Your task to perform on an android device: make emails show in primary in the gmail app Image 0: 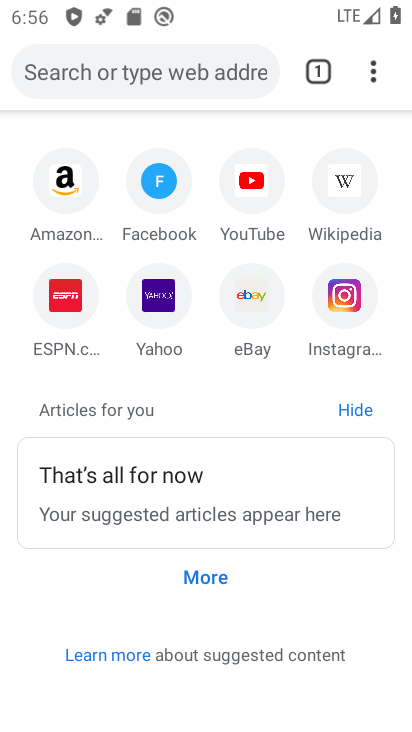
Step 0: press home button
Your task to perform on an android device: make emails show in primary in the gmail app Image 1: 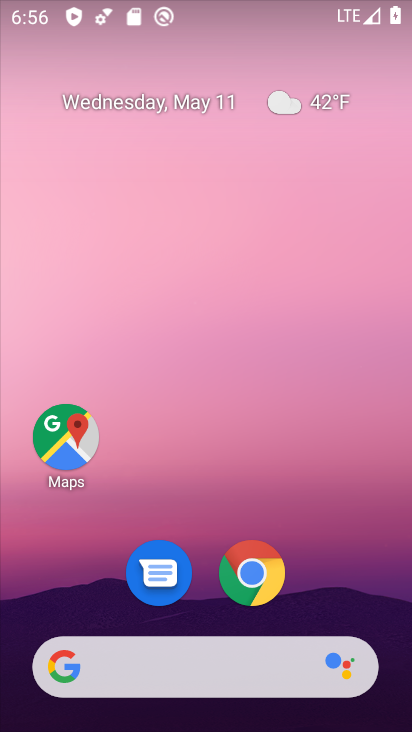
Step 1: drag from (308, 615) to (269, 244)
Your task to perform on an android device: make emails show in primary in the gmail app Image 2: 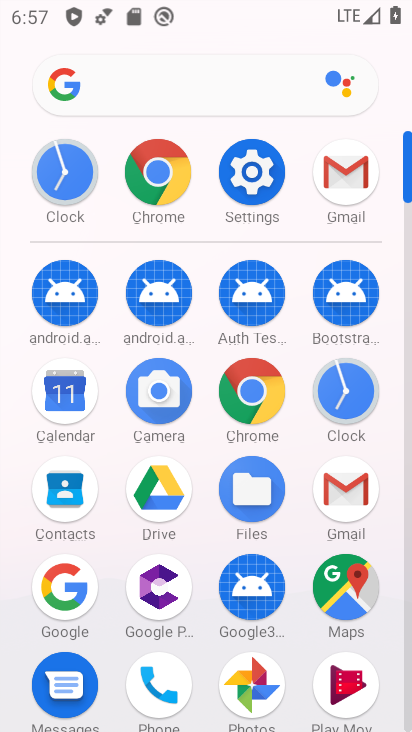
Step 2: click (350, 495)
Your task to perform on an android device: make emails show in primary in the gmail app Image 3: 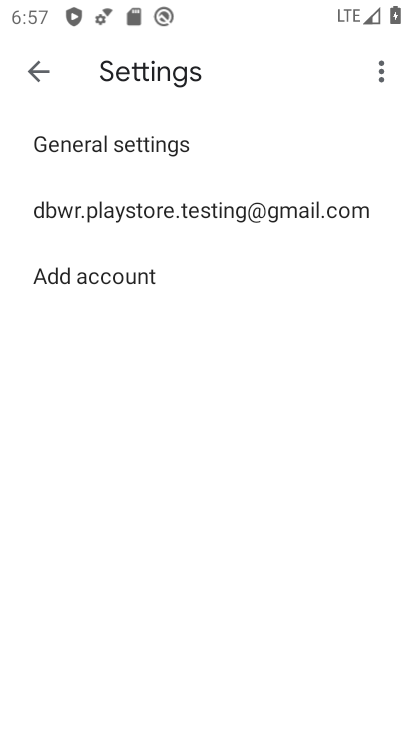
Step 3: click (35, 66)
Your task to perform on an android device: make emails show in primary in the gmail app Image 4: 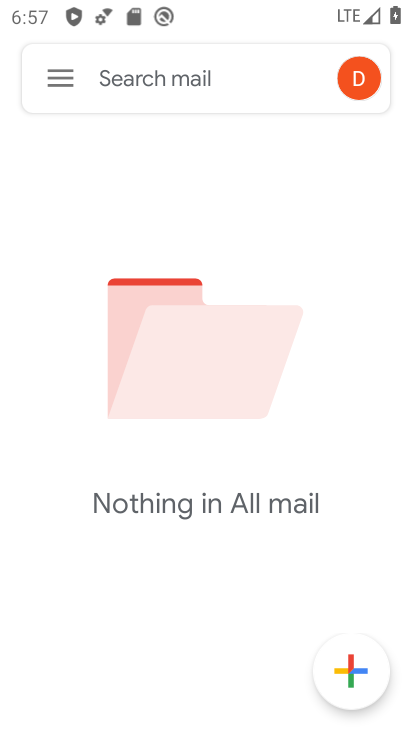
Step 4: click (54, 77)
Your task to perform on an android device: make emails show in primary in the gmail app Image 5: 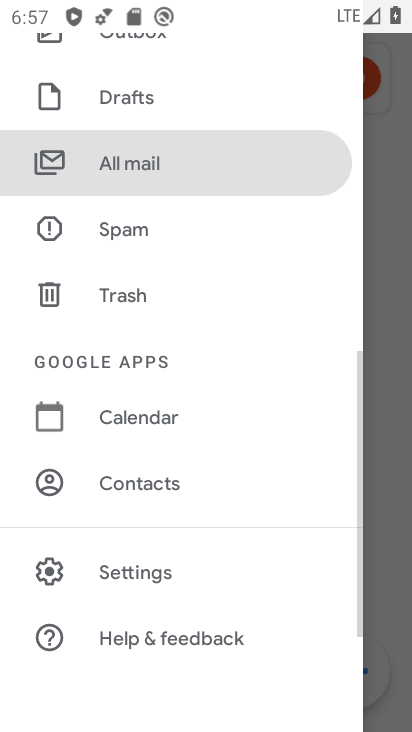
Step 5: click (139, 569)
Your task to perform on an android device: make emails show in primary in the gmail app Image 6: 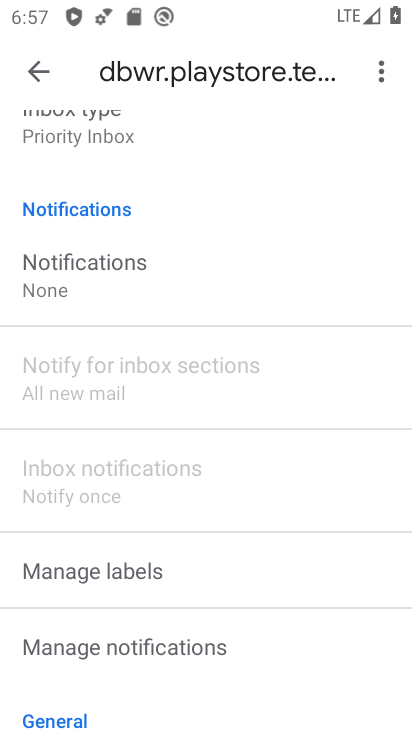
Step 6: task complete